Your task to perform on an android device: Do I have any events today? Image 0: 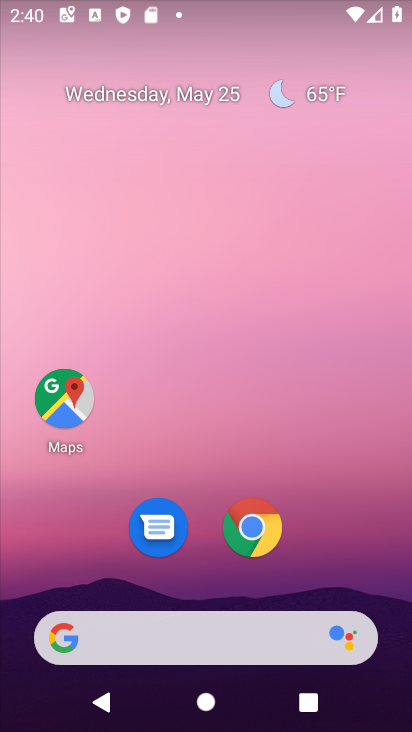
Step 0: drag from (253, 655) to (267, 74)
Your task to perform on an android device: Do I have any events today? Image 1: 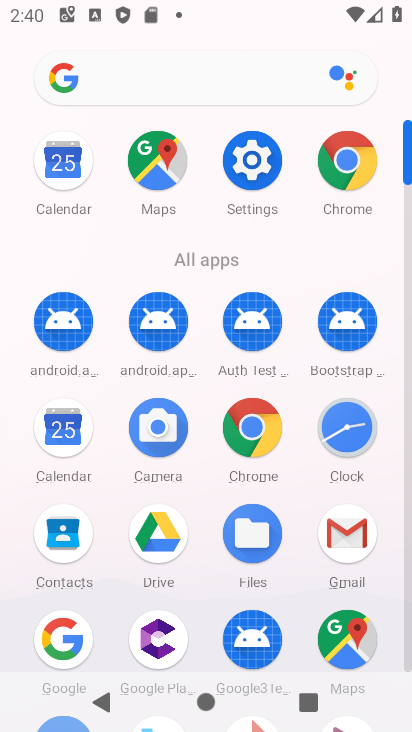
Step 1: click (65, 444)
Your task to perform on an android device: Do I have any events today? Image 2: 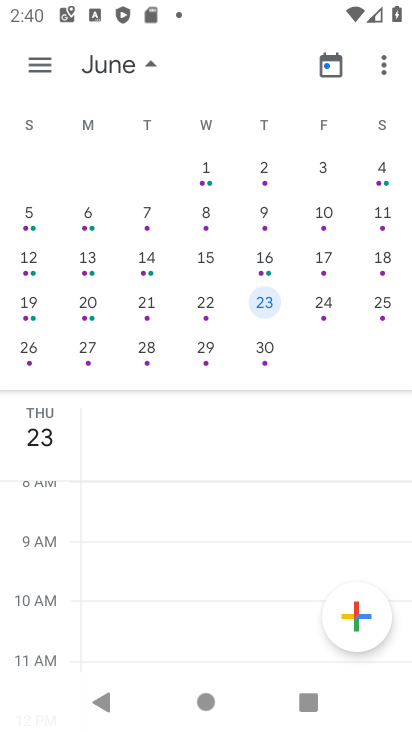
Step 2: task complete